Your task to perform on an android device: change keyboard looks Image 0: 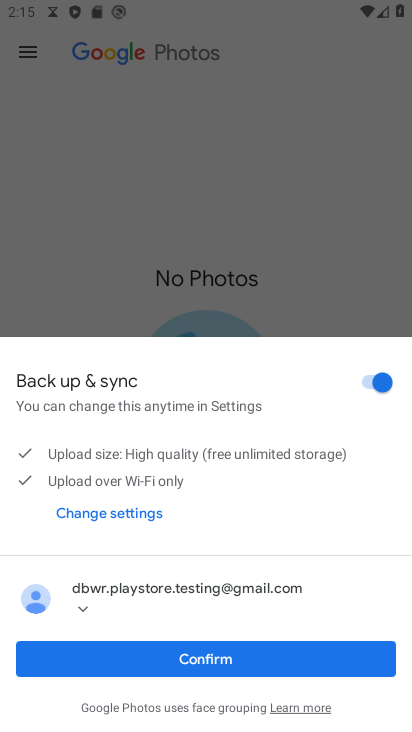
Step 0: click (216, 664)
Your task to perform on an android device: change keyboard looks Image 1: 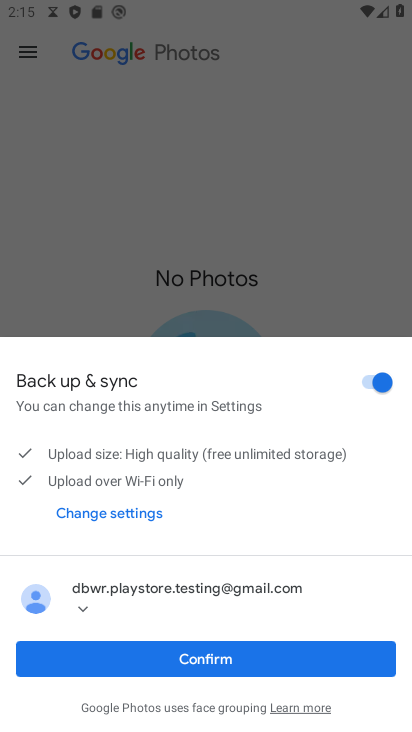
Step 1: click (219, 662)
Your task to perform on an android device: change keyboard looks Image 2: 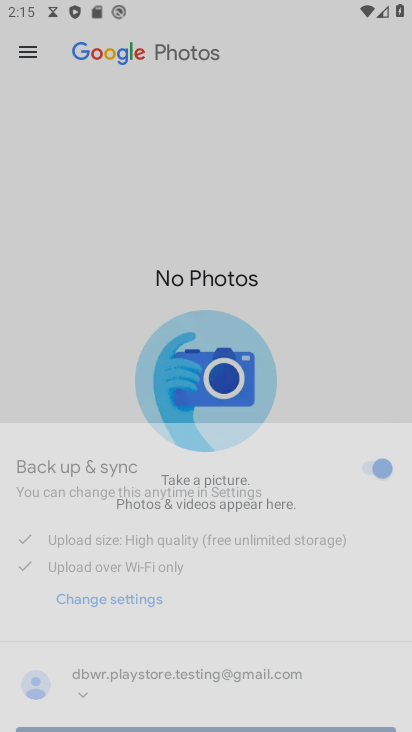
Step 2: click (227, 667)
Your task to perform on an android device: change keyboard looks Image 3: 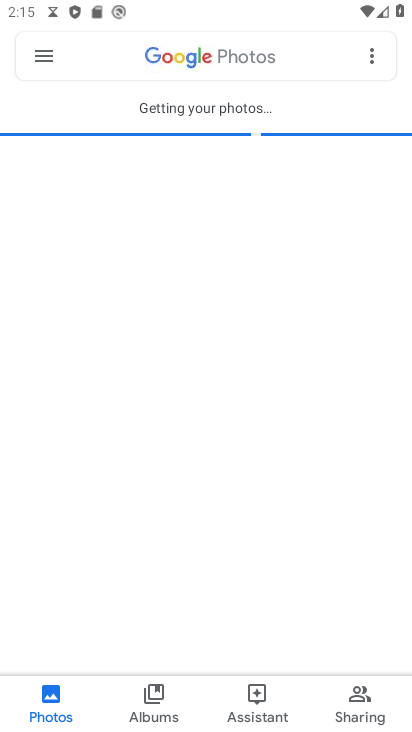
Step 3: press back button
Your task to perform on an android device: change keyboard looks Image 4: 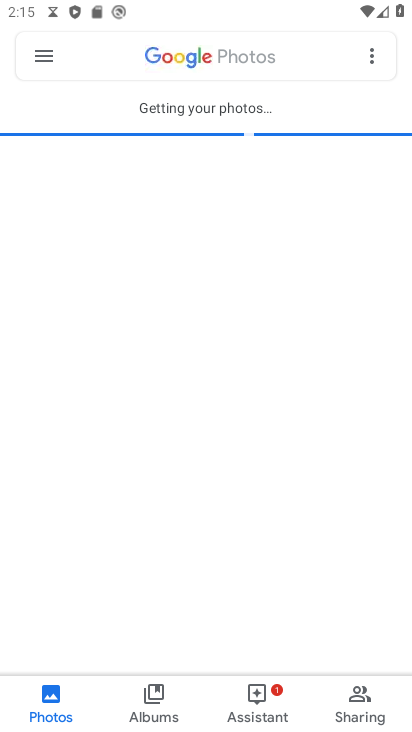
Step 4: press back button
Your task to perform on an android device: change keyboard looks Image 5: 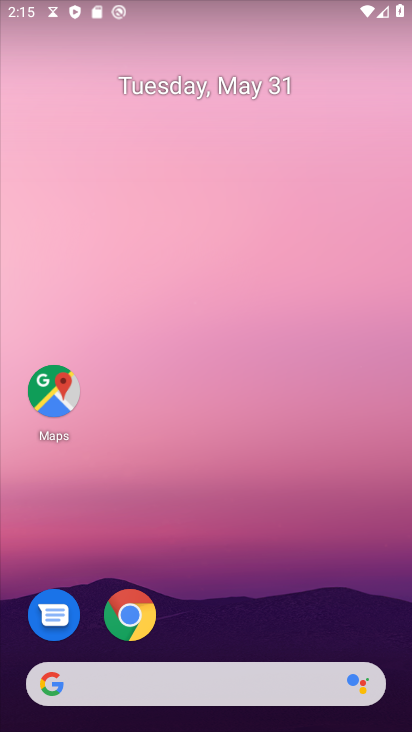
Step 5: drag from (250, 721) to (230, 108)
Your task to perform on an android device: change keyboard looks Image 6: 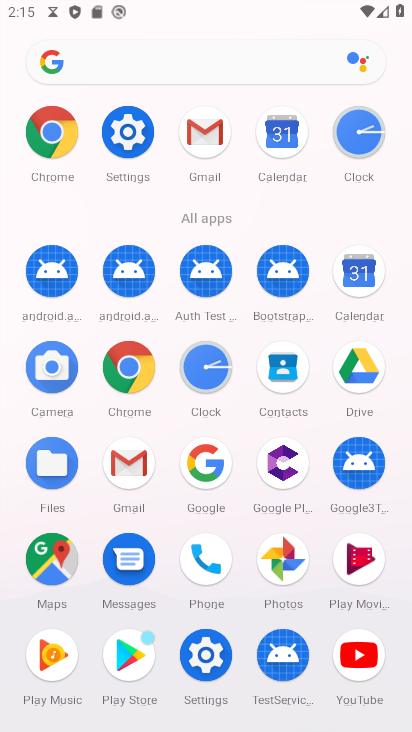
Step 6: click (204, 653)
Your task to perform on an android device: change keyboard looks Image 7: 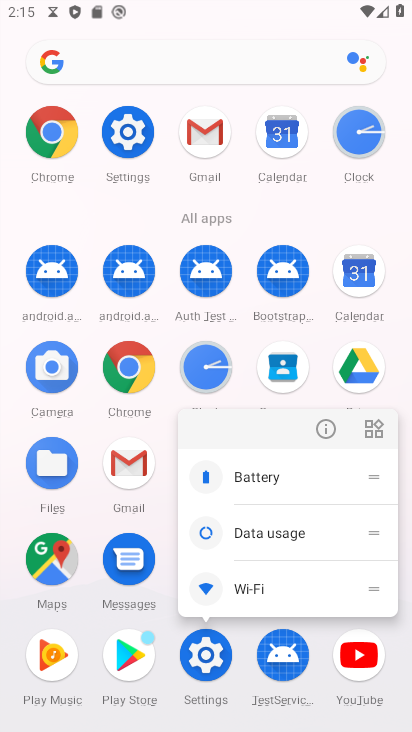
Step 7: click (206, 651)
Your task to perform on an android device: change keyboard looks Image 8: 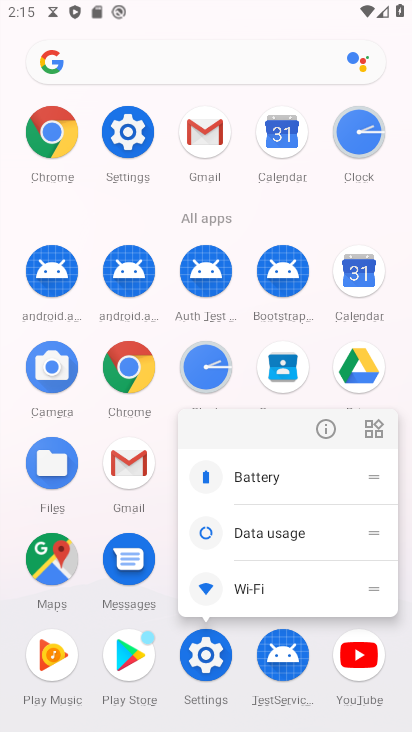
Step 8: click (206, 654)
Your task to perform on an android device: change keyboard looks Image 9: 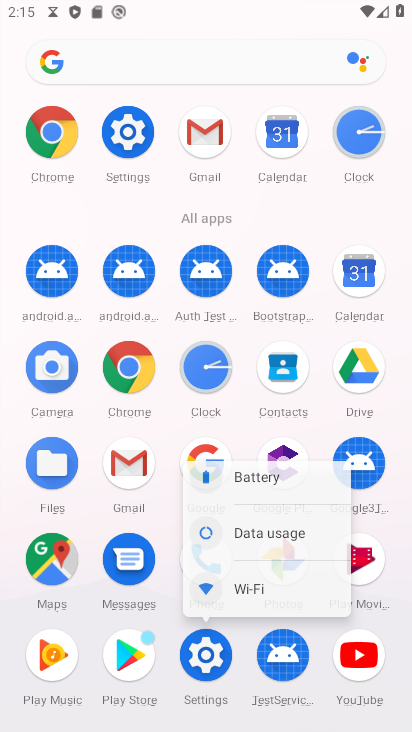
Step 9: click (207, 653)
Your task to perform on an android device: change keyboard looks Image 10: 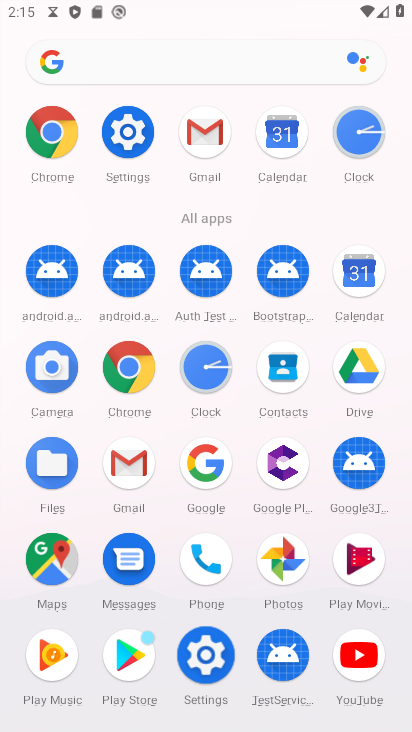
Step 10: click (207, 653)
Your task to perform on an android device: change keyboard looks Image 11: 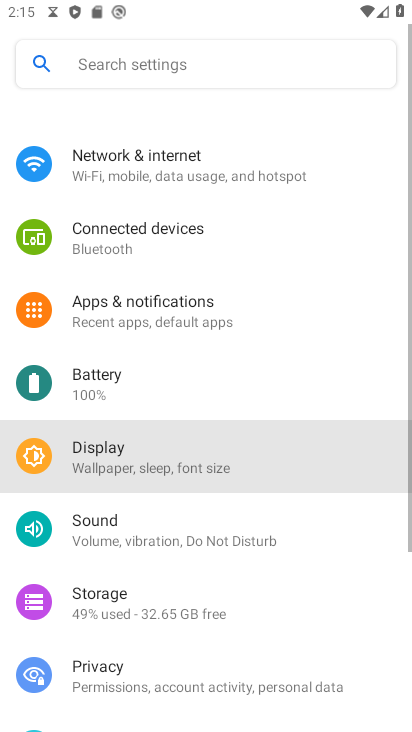
Step 11: click (207, 653)
Your task to perform on an android device: change keyboard looks Image 12: 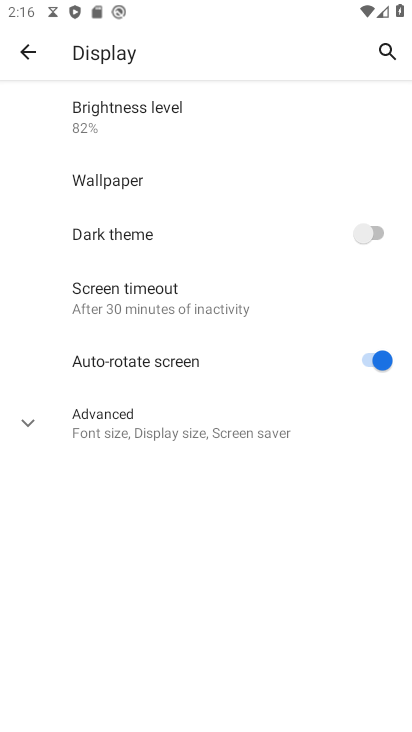
Step 12: click (18, 59)
Your task to perform on an android device: change keyboard looks Image 13: 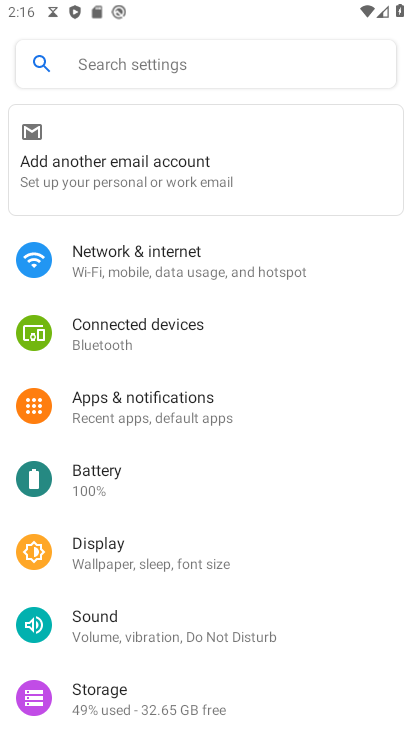
Step 13: drag from (163, 608) to (180, 340)
Your task to perform on an android device: change keyboard looks Image 14: 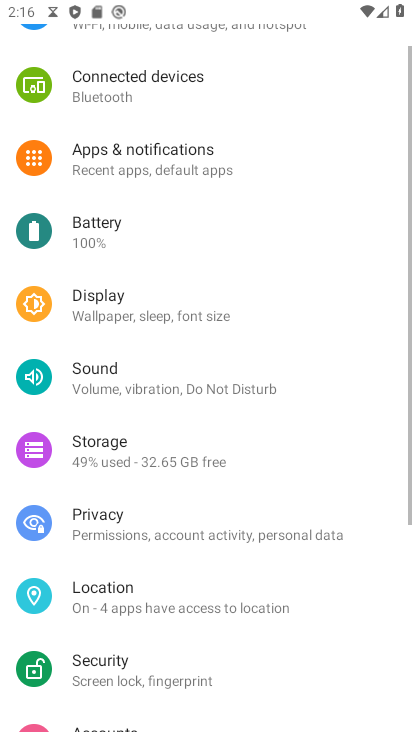
Step 14: drag from (194, 539) to (232, 217)
Your task to perform on an android device: change keyboard looks Image 15: 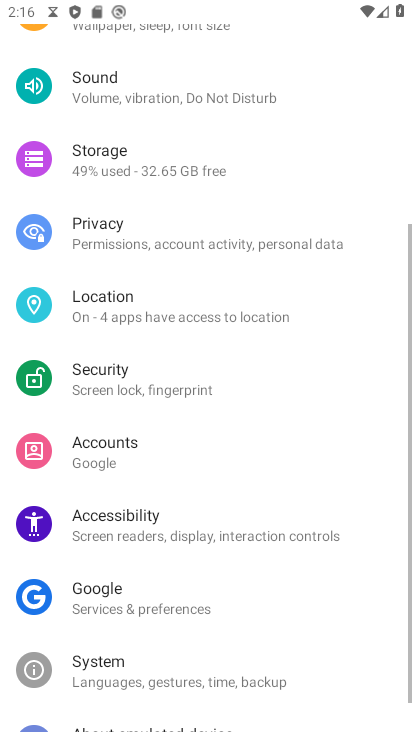
Step 15: drag from (202, 530) to (208, 198)
Your task to perform on an android device: change keyboard looks Image 16: 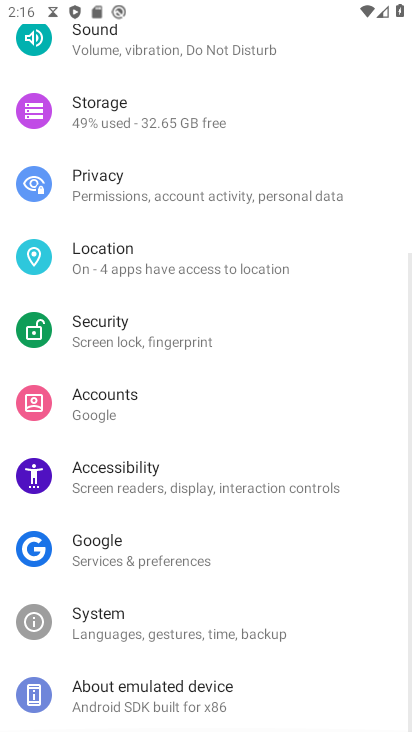
Step 16: drag from (174, 586) to (185, 187)
Your task to perform on an android device: change keyboard looks Image 17: 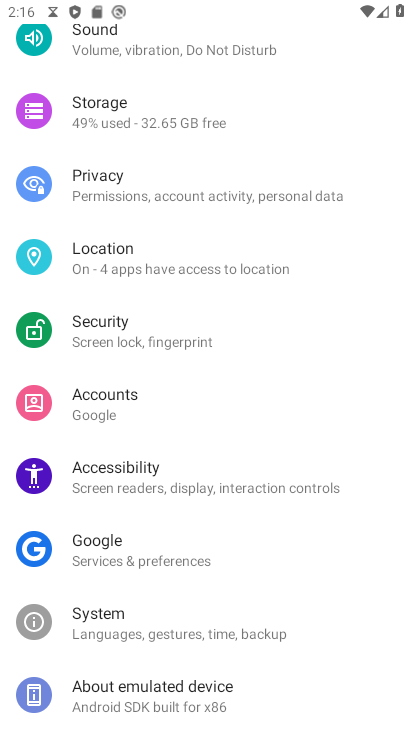
Step 17: click (99, 624)
Your task to perform on an android device: change keyboard looks Image 18: 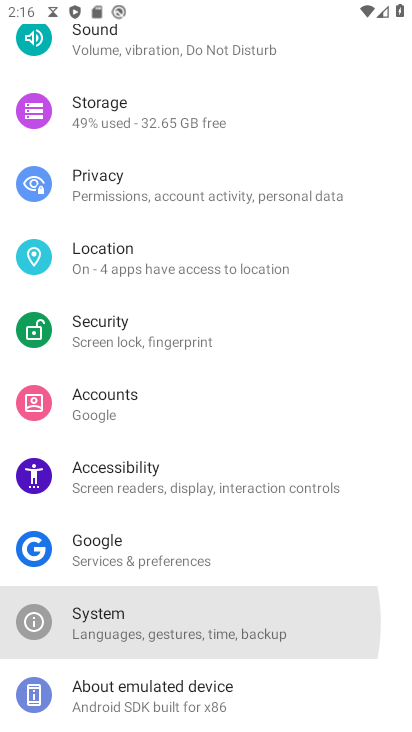
Step 18: click (99, 624)
Your task to perform on an android device: change keyboard looks Image 19: 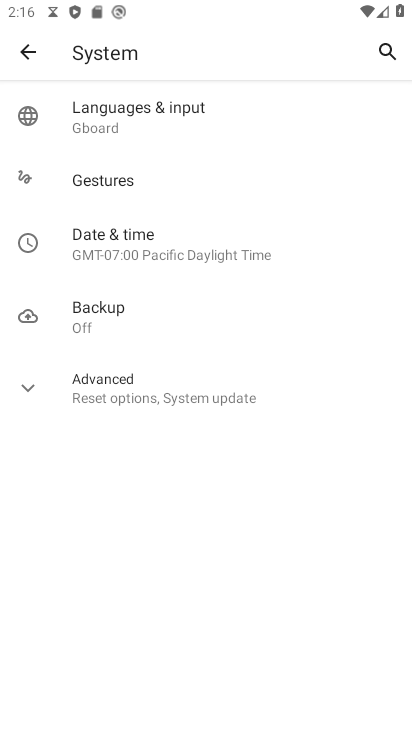
Step 19: click (106, 124)
Your task to perform on an android device: change keyboard looks Image 20: 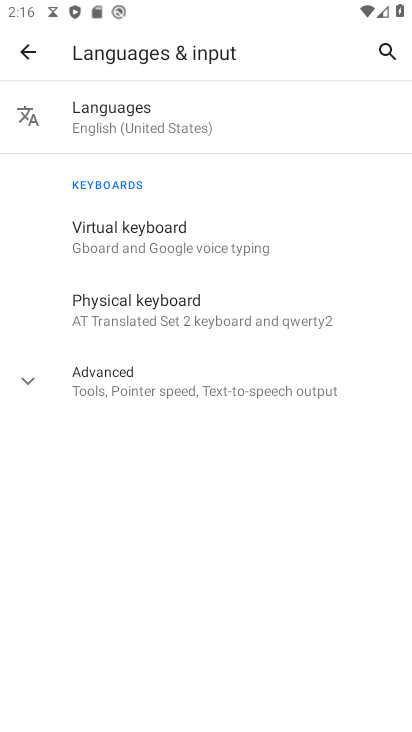
Step 20: click (133, 233)
Your task to perform on an android device: change keyboard looks Image 21: 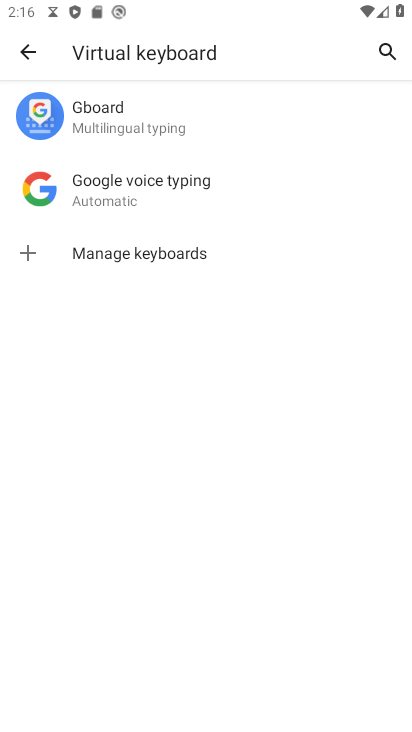
Step 21: click (84, 104)
Your task to perform on an android device: change keyboard looks Image 22: 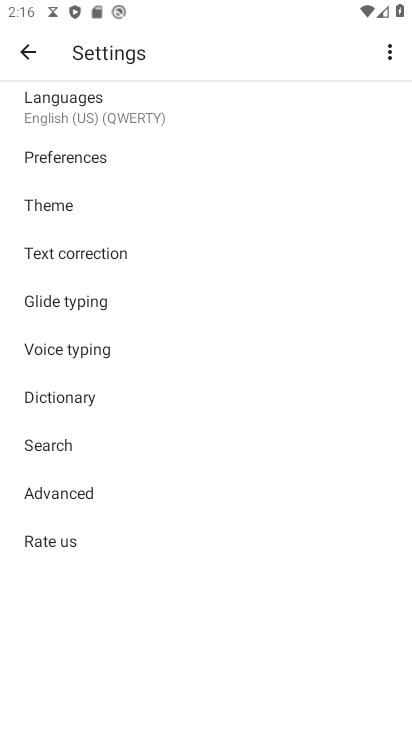
Step 22: click (46, 200)
Your task to perform on an android device: change keyboard looks Image 23: 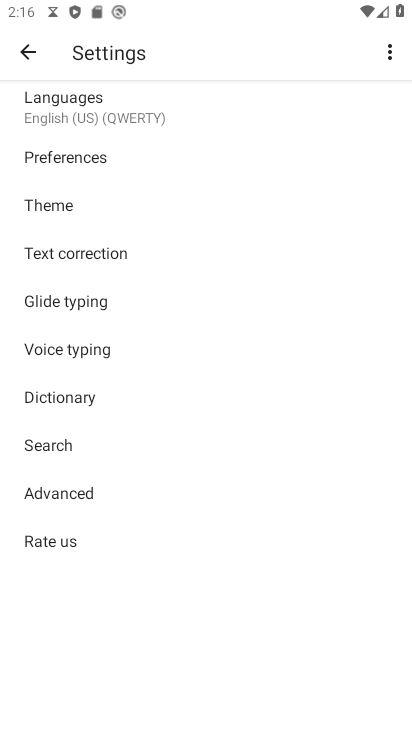
Step 23: click (46, 200)
Your task to perform on an android device: change keyboard looks Image 24: 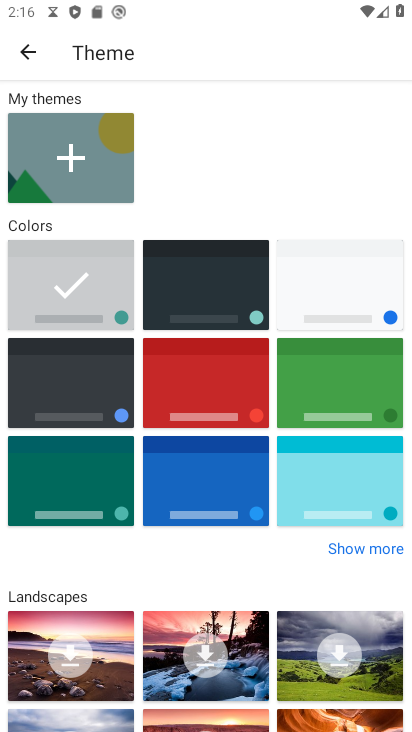
Step 24: click (193, 375)
Your task to perform on an android device: change keyboard looks Image 25: 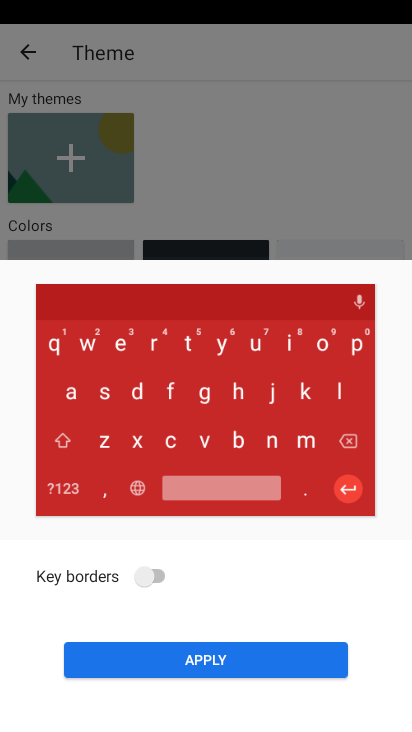
Step 25: click (225, 653)
Your task to perform on an android device: change keyboard looks Image 26: 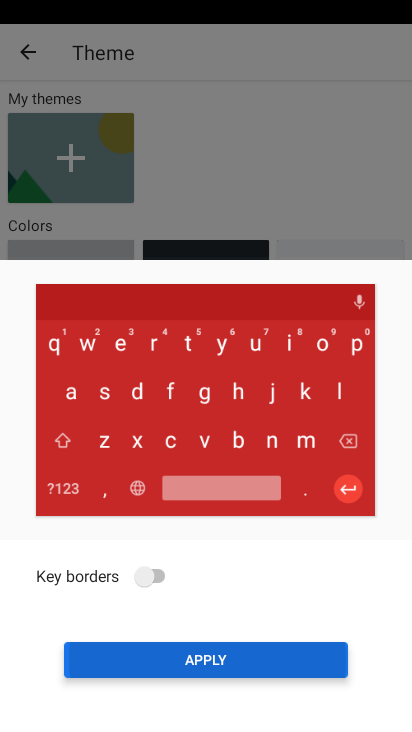
Step 26: click (225, 653)
Your task to perform on an android device: change keyboard looks Image 27: 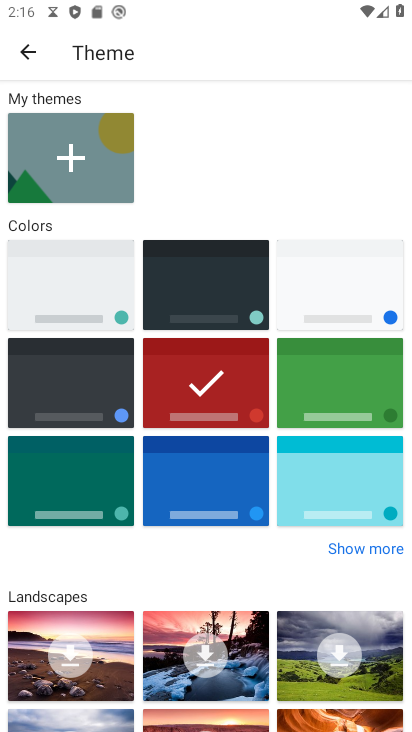
Step 27: click (225, 653)
Your task to perform on an android device: change keyboard looks Image 28: 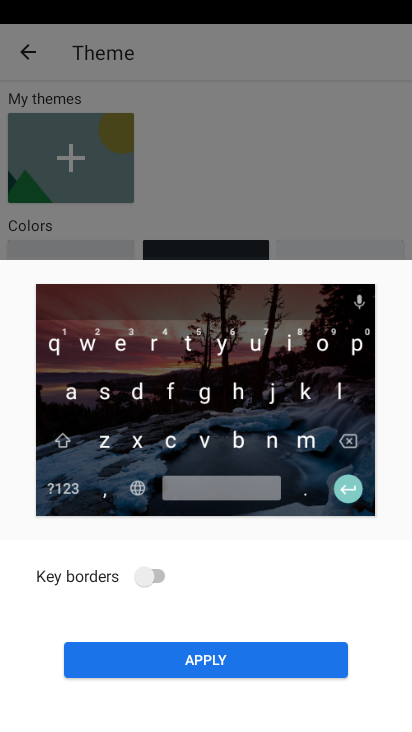
Step 28: click (224, 660)
Your task to perform on an android device: change keyboard looks Image 29: 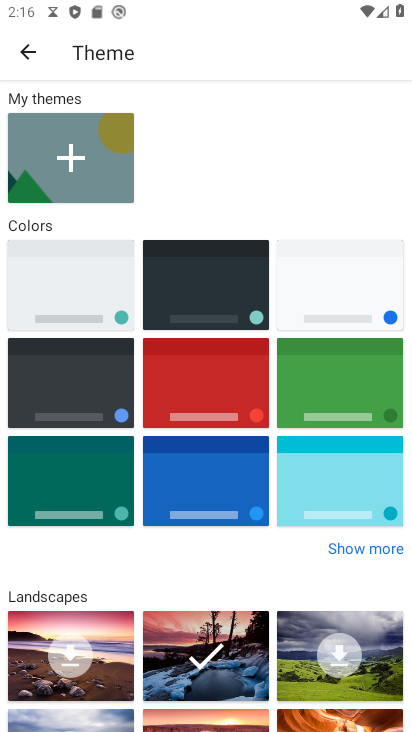
Step 29: task complete